Your task to perform on an android device: turn notification dots on Image 0: 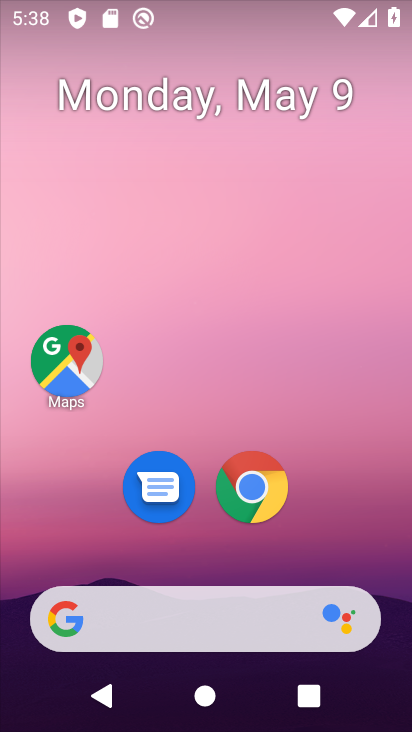
Step 0: drag from (320, 561) to (324, 108)
Your task to perform on an android device: turn notification dots on Image 1: 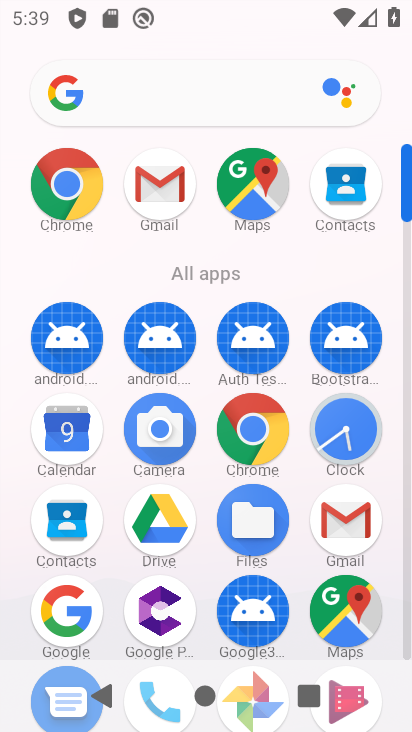
Step 1: drag from (200, 627) to (249, 374)
Your task to perform on an android device: turn notification dots on Image 2: 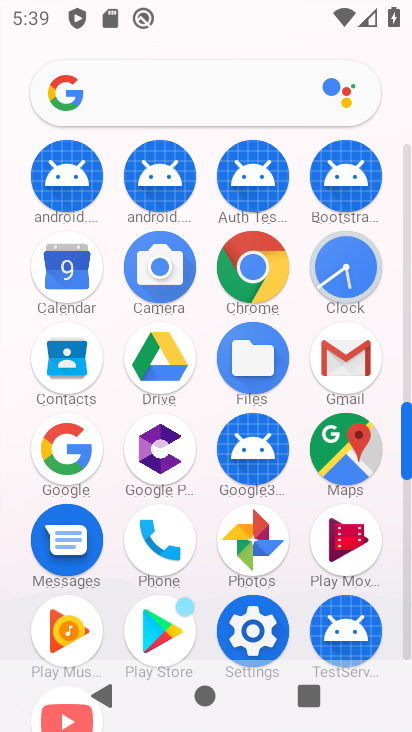
Step 2: click (258, 653)
Your task to perform on an android device: turn notification dots on Image 3: 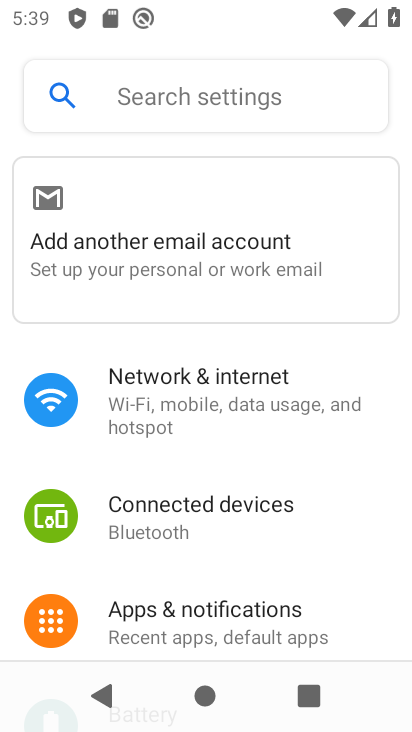
Step 3: drag from (205, 560) to (278, 202)
Your task to perform on an android device: turn notification dots on Image 4: 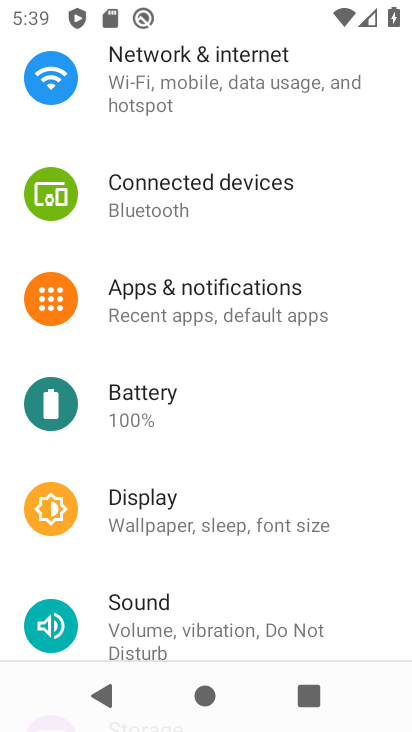
Step 4: drag from (192, 555) to (225, 332)
Your task to perform on an android device: turn notification dots on Image 5: 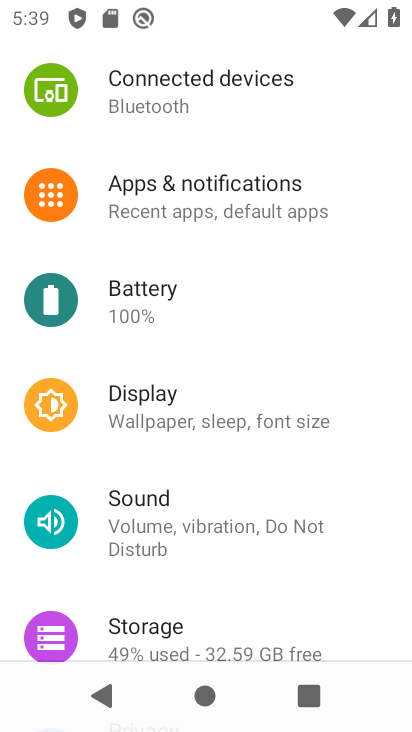
Step 5: drag from (225, 598) to (232, 228)
Your task to perform on an android device: turn notification dots on Image 6: 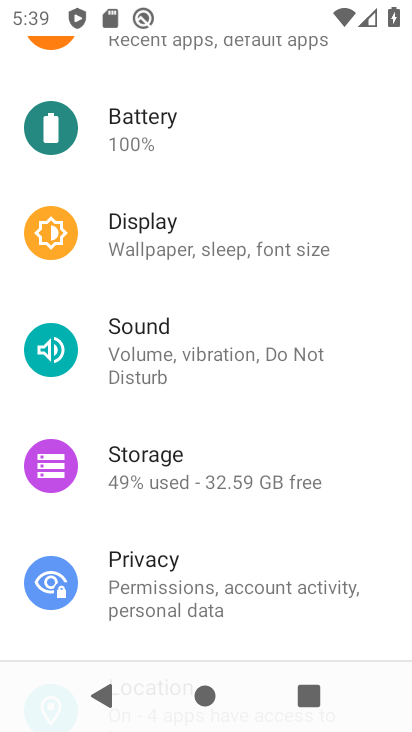
Step 6: drag from (204, 365) to (242, 223)
Your task to perform on an android device: turn notification dots on Image 7: 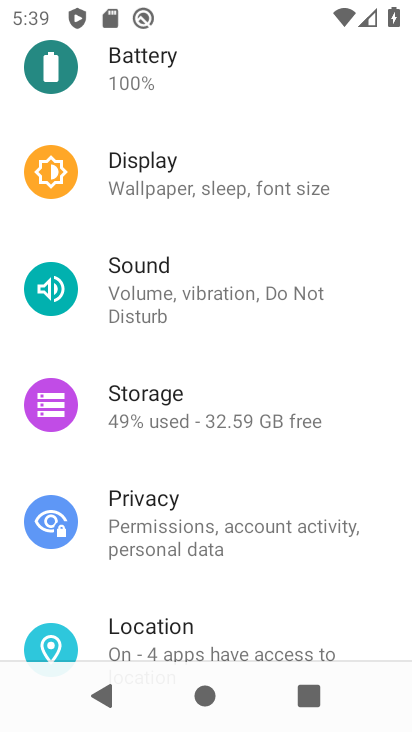
Step 7: drag from (194, 603) to (262, 354)
Your task to perform on an android device: turn notification dots on Image 8: 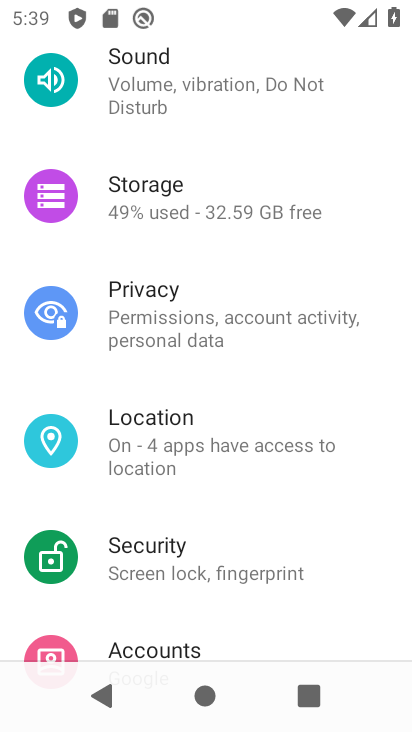
Step 8: drag from (196, 554) to (252, 250)
Your task to perform on an android device: turn notification dots on Image 9: 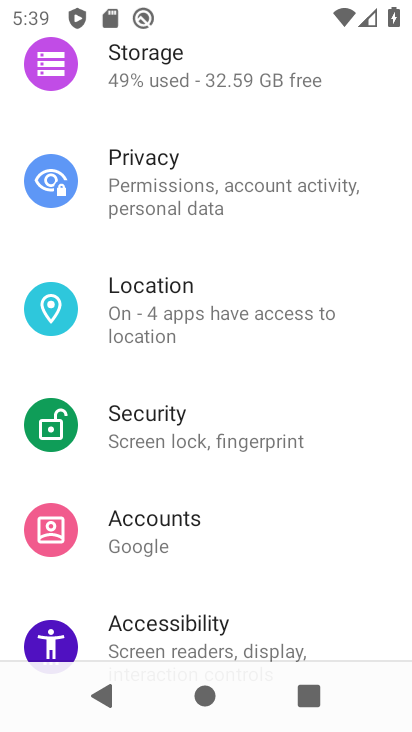
Step 9: drag from (217, 552) to (251, 146)
Your task to perform on an android device: turn notification dots on Image 10: 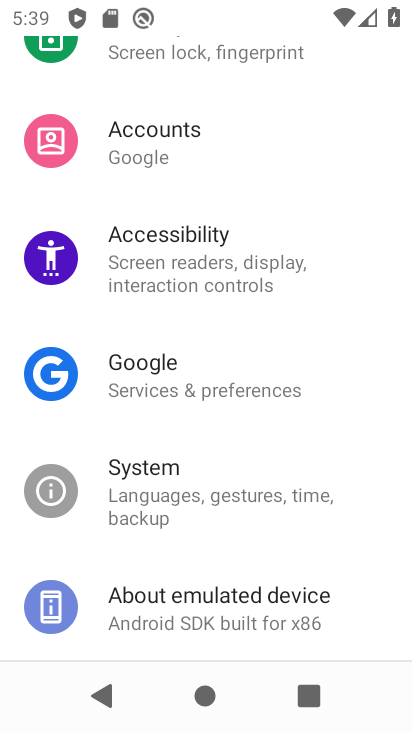
Step 10: drag from (214, 202) to (130, 716)
Your task to perform on an android device: turn notification dots on Image 11: 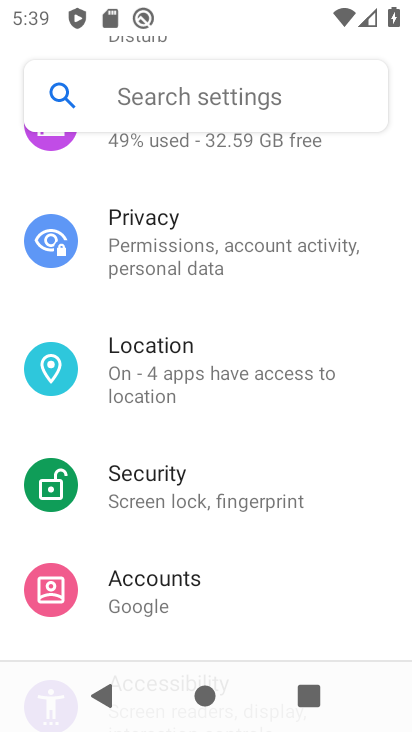
Step 11: drag from (204, 270) to (189, 728)
Your task to perform on an android device: turn notification dots on Image 12: 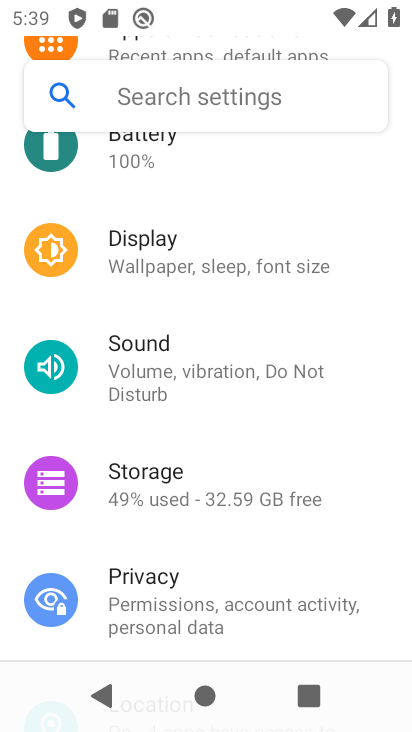
Step 12: drag from (187, 337) to (124, 730)
Your task to perform on an android device: turn notification dots on Image 13: 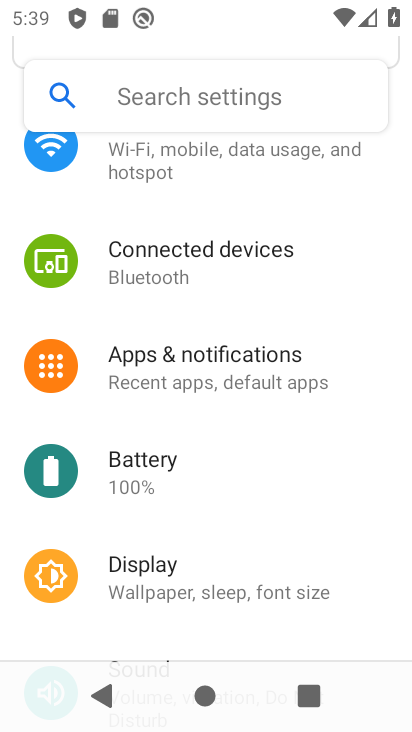
Step 13: click (155, 379)
Your task to perform on an android device: turn notification dots on Image 14: 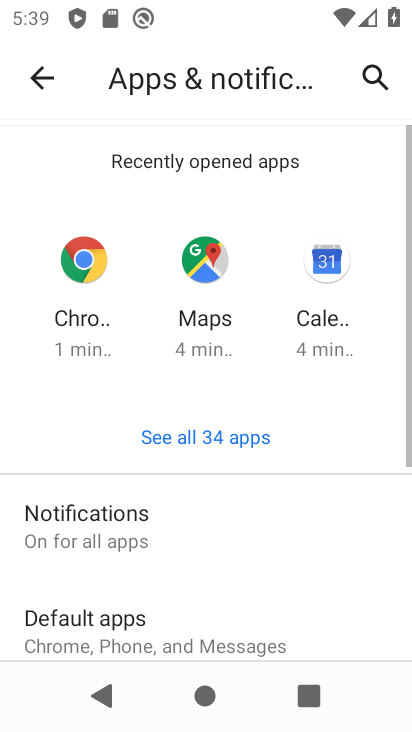
Step 14: drag from (221, 572) to (268, 254)
Your task to perform on an android device: turn notification dots on Image 15: 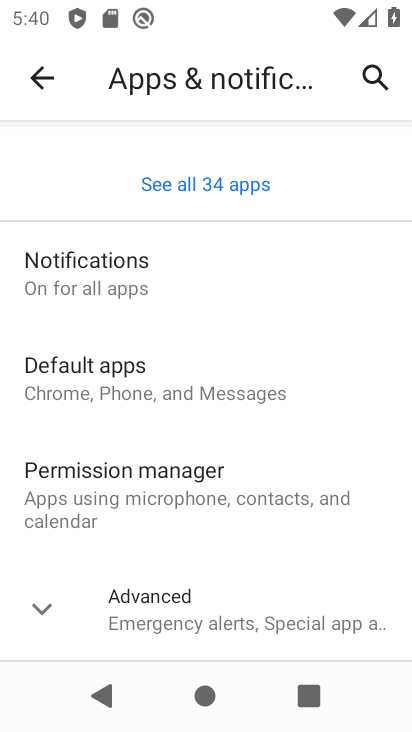
Step 15: click (111, 279)
Your task to perform on an android device: turn notification dots on Image 16: 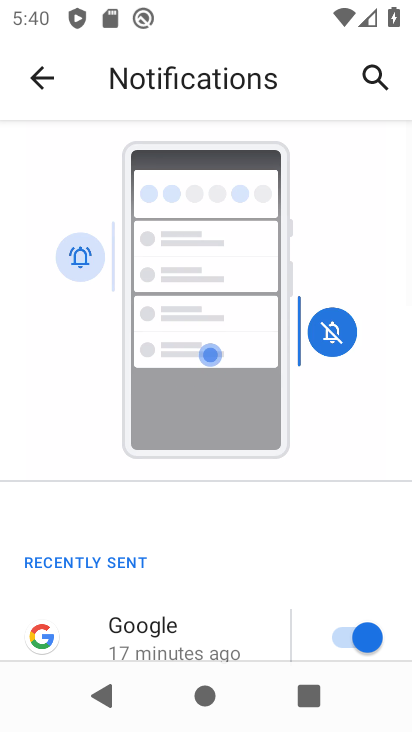
Step 16: drag from (254, 595) to (343, 227)
Your task to perform on an android device: turn notification dots on Image 17: 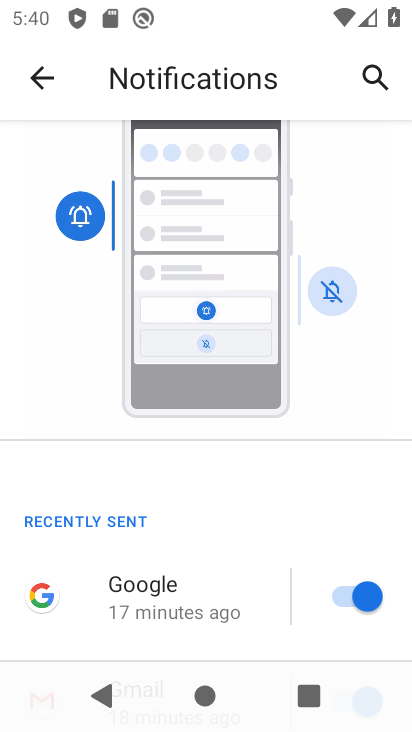
Step 17: drag from (214, 588) to (278, 254)
Your task to perform on an android device: turn notification dots on Image 18: 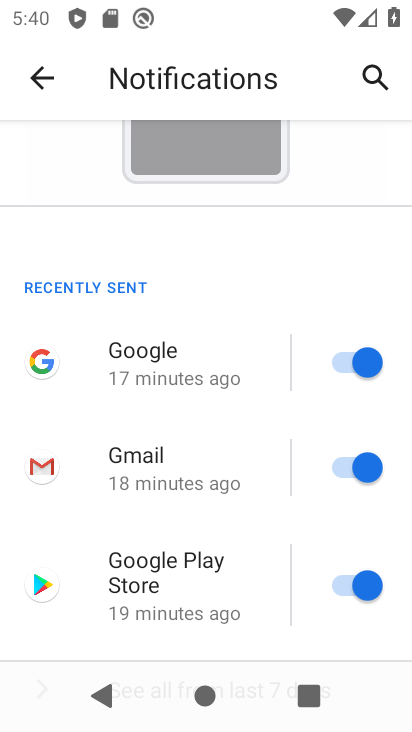
Step 18: drag from (179, 592) to (272, 262)
Your task to perform on an android device: turn notification dots on Image 19: 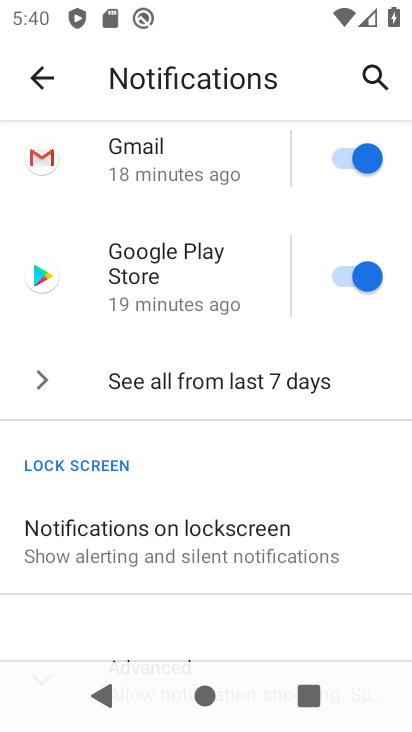
Step 19: drag from (181, 583) to (287, 352)
Your task to perform on an android device: turn notification dots on Image 20: 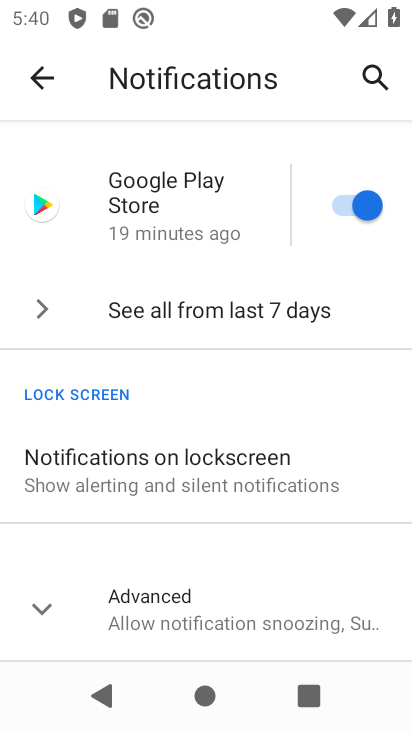
Step 20: click (139, 619)
Your task to perform on an android device: turn notification dots on Image 21: 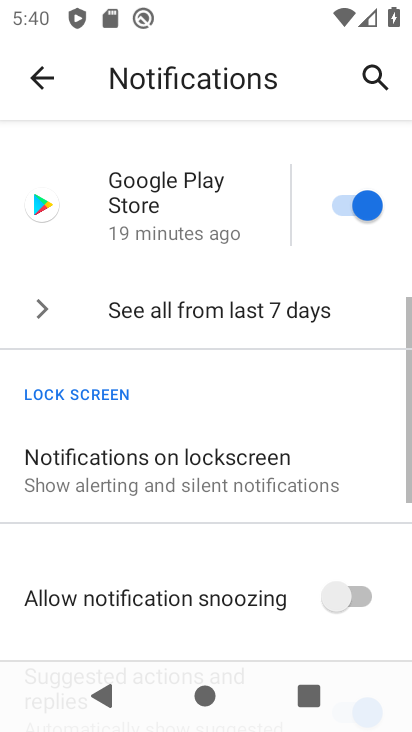
Step 21: task complete